Your task to perform on an android device: Open Chrome and go to the settings page Image 0: 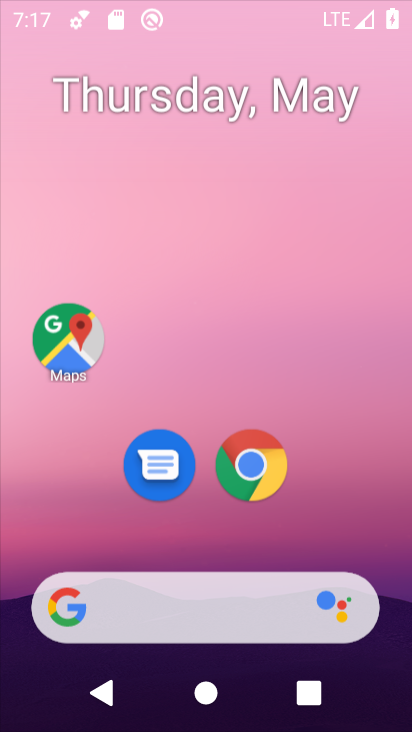
Step 0: click (388, 477)
Your task to perform on an android device: Open Chrome and go to the settings page Image 1: 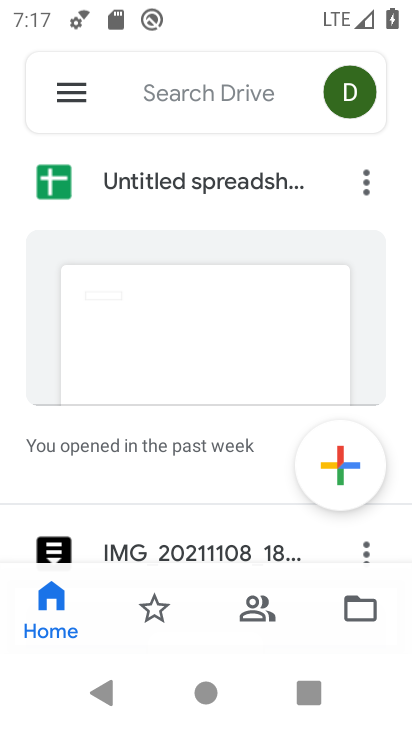
Step 1: press home button
Your task to perform on an android device: Open Chrome and go to the settings page Image 2: 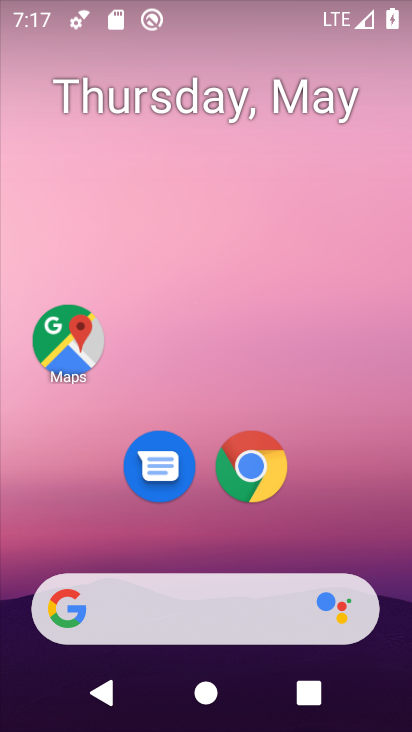
Step 2: click (356, 527)
Your task to perform on an android device: Open Chrome and go to the settings page Image 3: 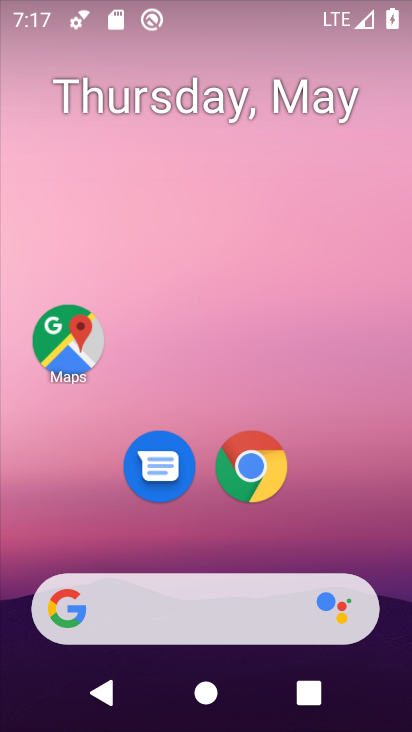
Step 3: drag from (356, 527) to (235, 26)
Your task to perform on an android device: Open Chrome and go to the settings page Image 4: 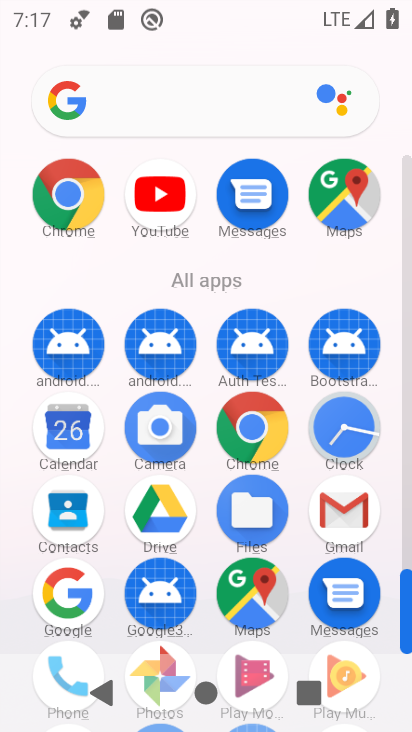
Step 4: click (71, 191)
Your task to perform on an android device: Open Chrome and go to the settings page Image 5: 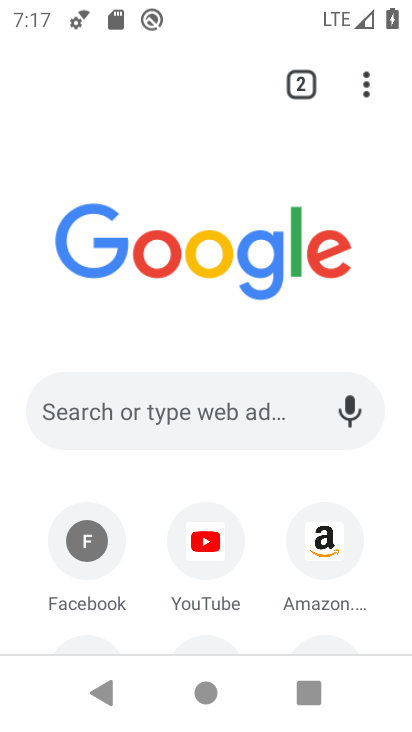
Step 5: click (362, 98)
Your task to perform on an android device: Open Chrome and go to the settings page Image 6: 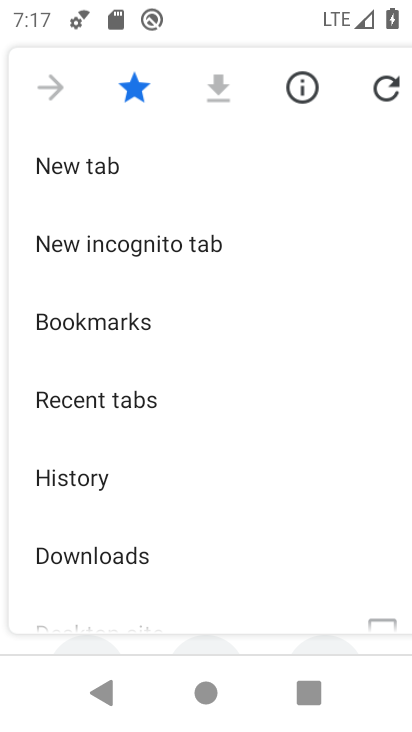
Step 6: drag from (202, 533) to (220, 297)
Your task to perform on an android device: Open Chrome and go to the settings page Image 7: 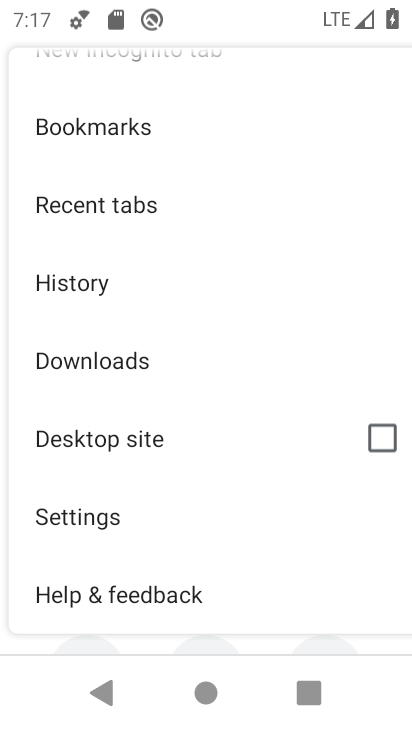
Step 7: click (210, 511)
Your task to perform on an android device: Open Chrome and go to the settings page Image 8: 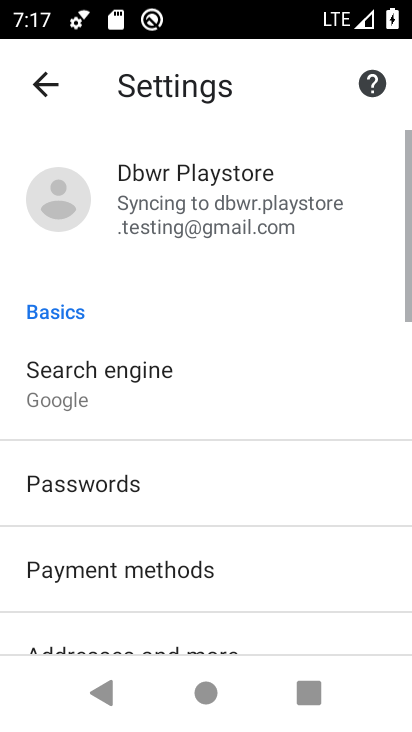
Step 8: task complete